Your task to perform on an android device: allow notifications from all sites in the chrome app Image 0: 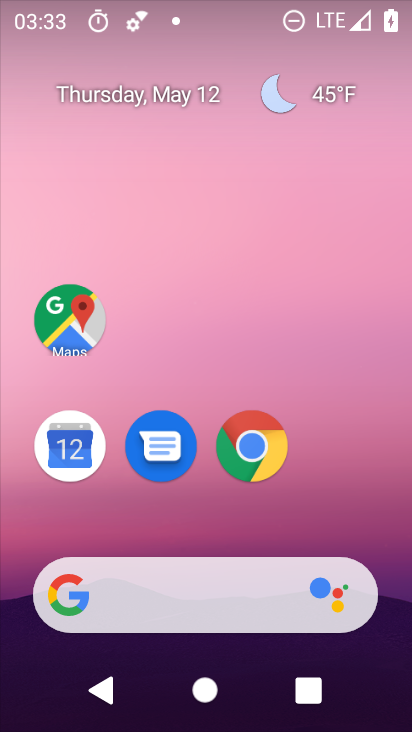
Step 0: click (288, 431)
Your task to perform on an android device: allow notifications from all sites in the chrome app Image 1: 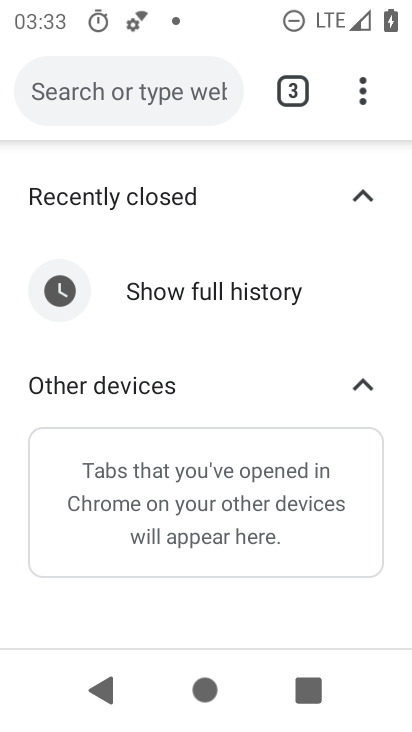
Step 1: drag from (364, 94) to (174, 471)
Your task to perform on an android device: allow notifications from all sites in the chrome app Image 2: 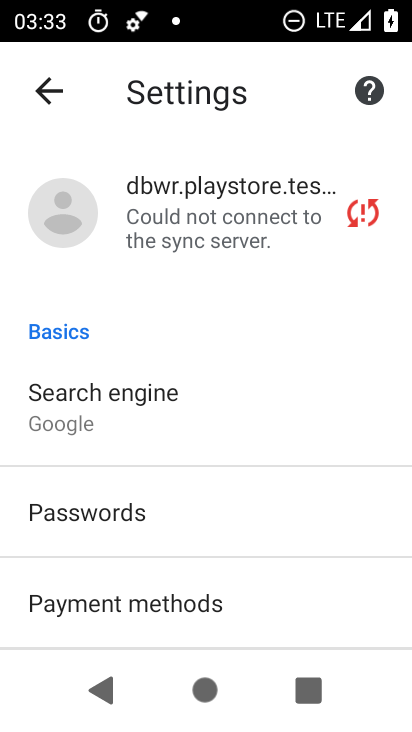
Step 2: drag from (174, 544) to (230, 212)
Your task to perform on an android device: allow notifications from all sites in the chrome app Image 3: 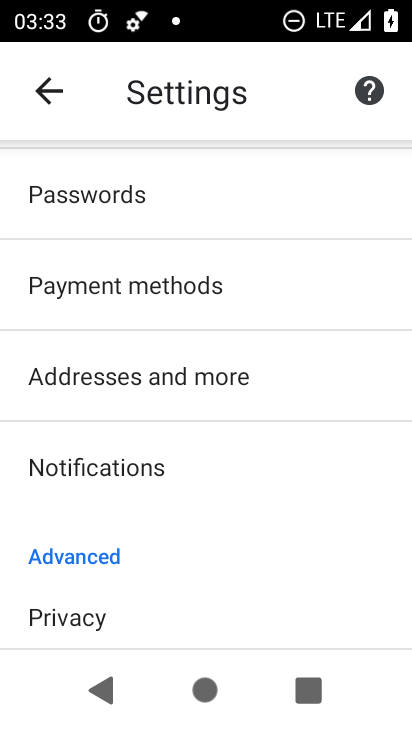
Step 3: drag from (160, 530) to (195, 277)
Your task to perform on an android device: allow notifications from all sites in the chrome app Image 4: 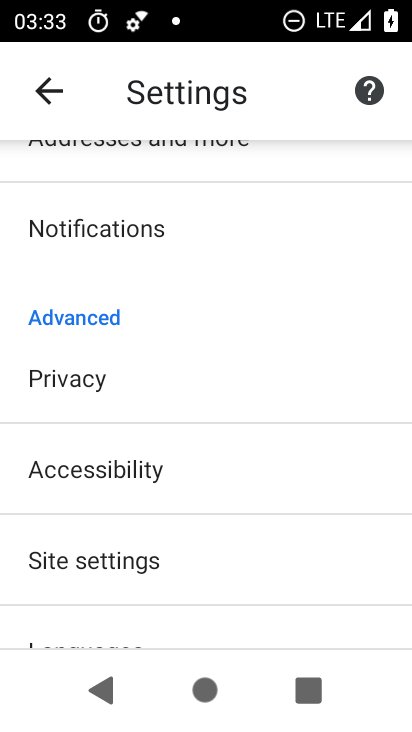
Step 4: click (119, 533)
Your task to perform on an android device: allow notifications from all sites in the chrome app Image 5: 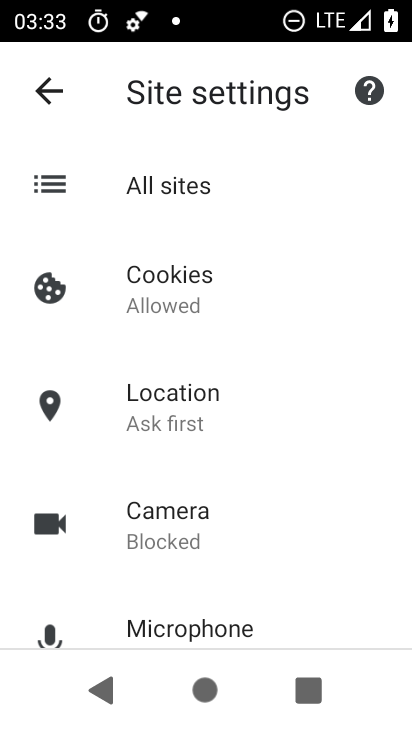
Step 5: click (150, 200)
Your task to perform on an android device: allow notifications from all sites in the chrome app Image 6: 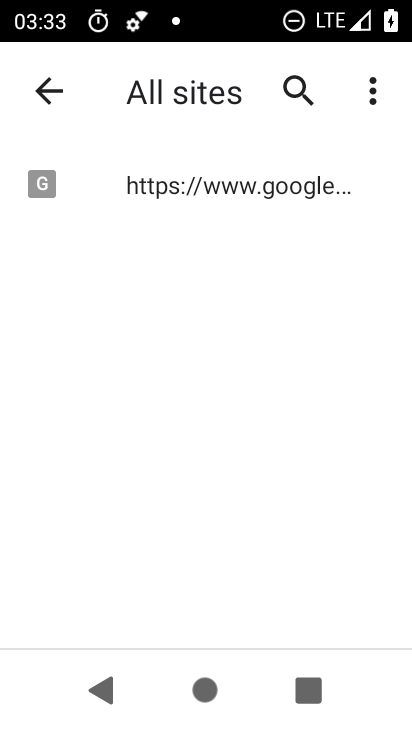
Step 6: click (179, 195)
Your task to perform on an android device: allow notifications from all sites in the chrome app Image 7: 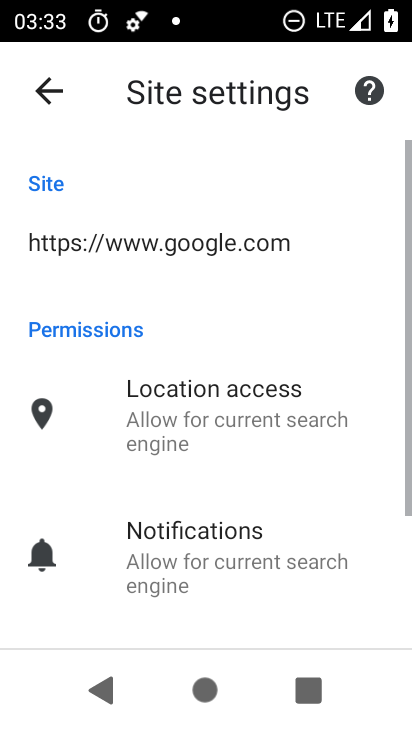
Step 7: drag from (255, 525) to (277, 291)
Your task to perform on an android device: allow notifications from all sites in the chrome app Image 8: 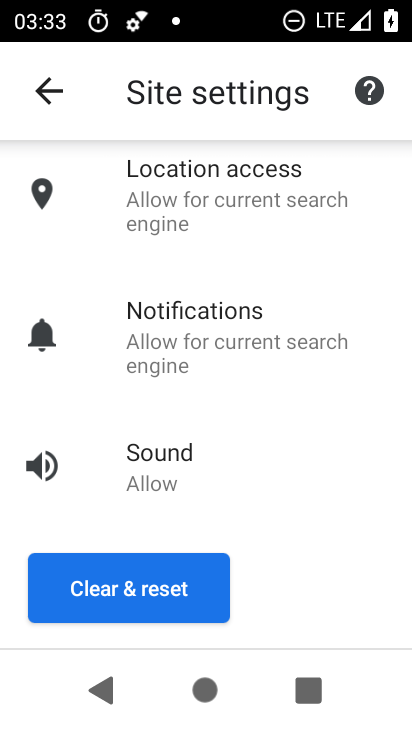
Step 8: click (228, 328)
Your task to perform on an android device: allow notifications from all sites in the chrome app Image 9: 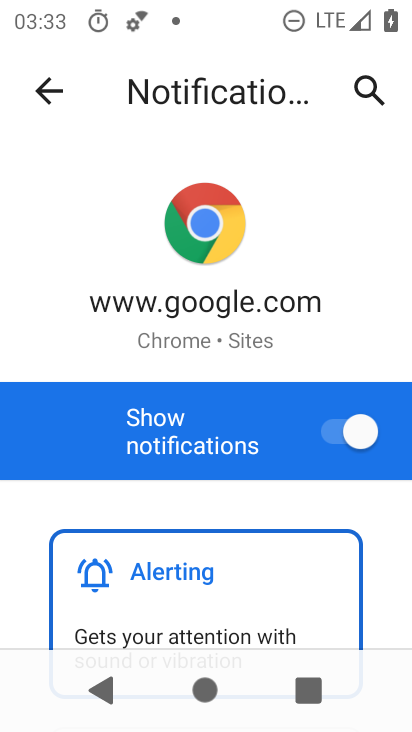
Step 9: task complete